Your task to perform on an android device: toggle show notifications on the lock screen Image 0: 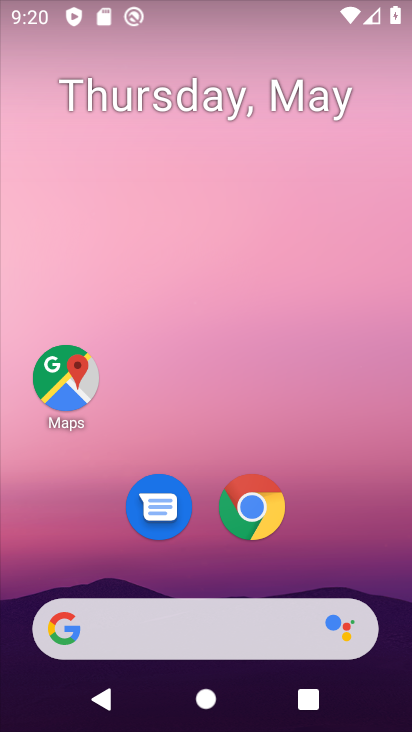
Step 0: drag from (342, 564) to (297, 248)
Your task to perform on an android device: toggle show notifications on the lock screen Image 1: 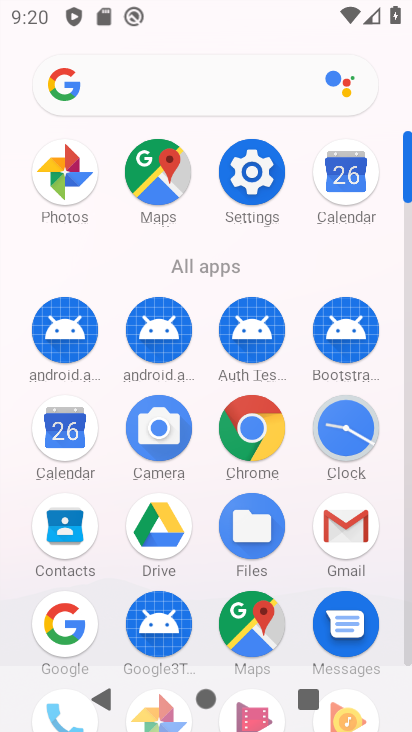
Step 1: click (257, 172)
Your task to perform on an android device: toggle show notifications on the lock screen Image 2: 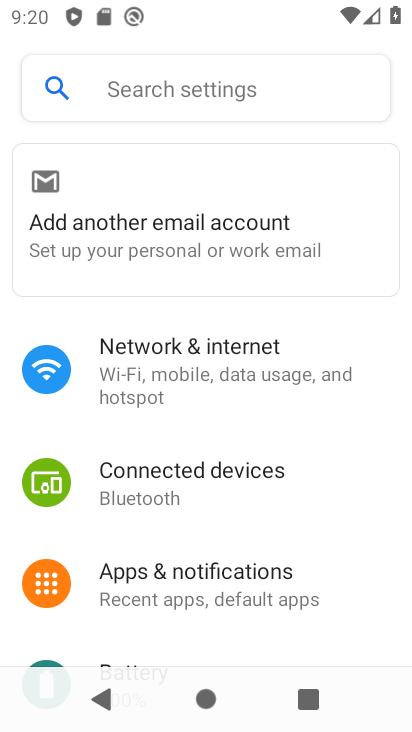
Step 2: click (238, 575)
Your task to perform on an android device: toggle show notifications on the lock screen Image 3: 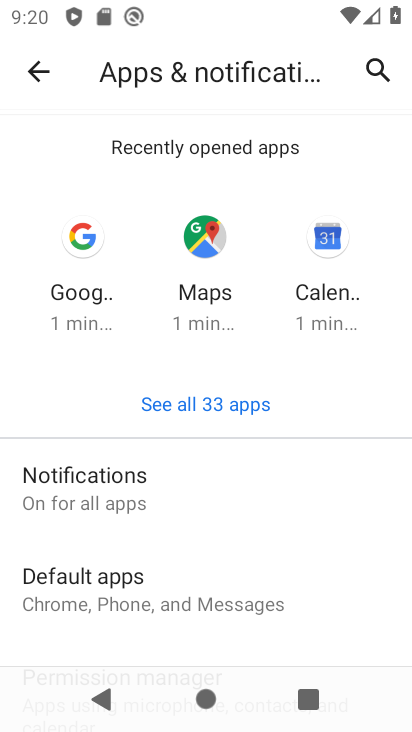
Step 3: click (240, 485)
Your task to perform on an android device: toggle show notifications on the lock screen Image 4: 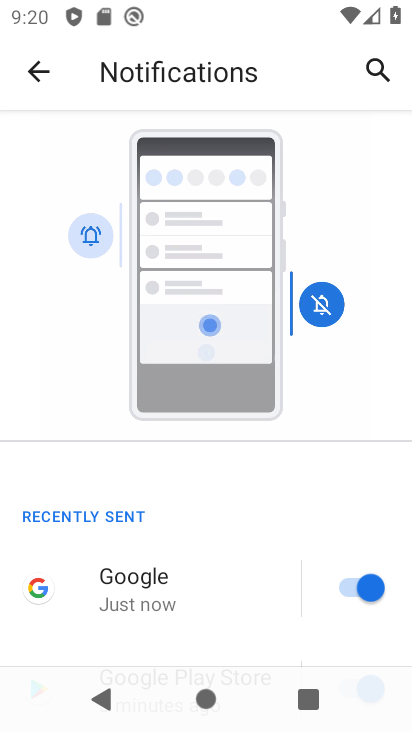
Step 4: drag from (267, 611) to (232, 168)
Your task to perform on an android device: toggle show notifications on the lock screen Image 5: 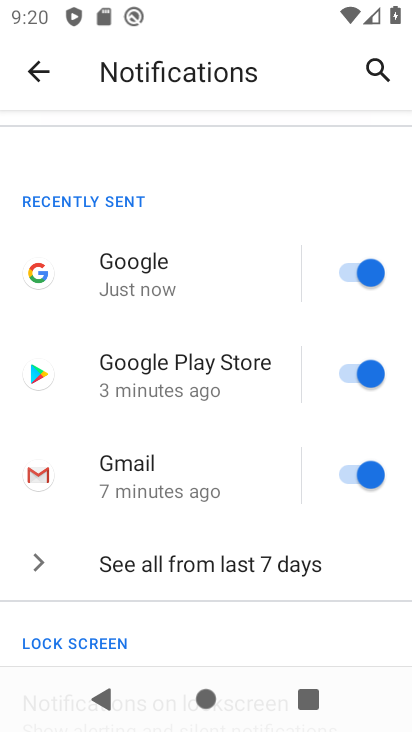
Step 5: drag from (237, 606) to (198, 270)
Your task to perform on an android device: toggle show notifications on the lock screen Image 6: 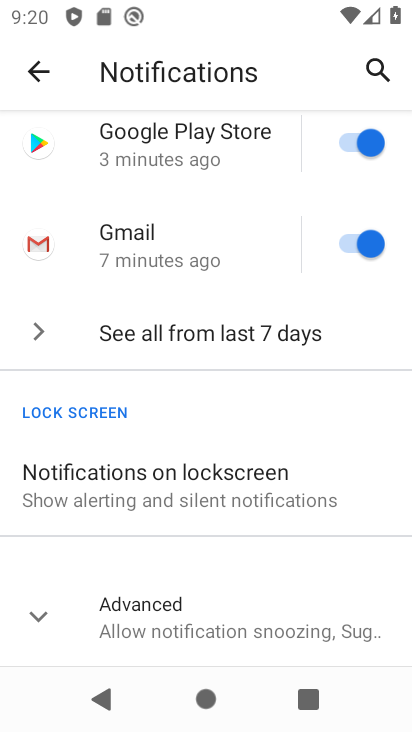
Step 6: click (210, 475)
Your task to perform on an android device: toggle show notifications on the lock screen Image 7: 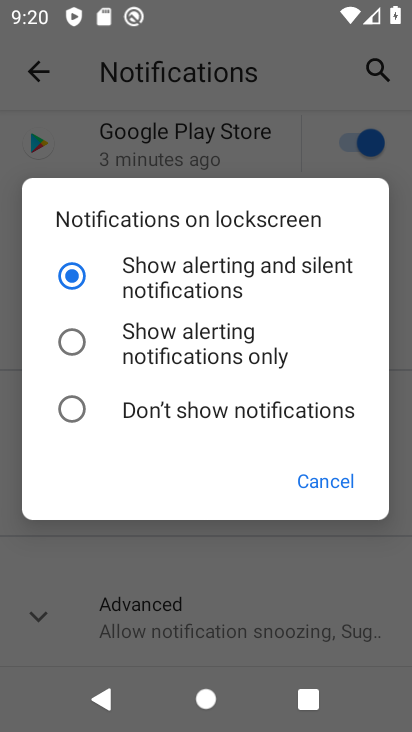
Step 7: click (186, 346)
Your task to perform on an android device: toggle show notifications on the lock screen Image 8: 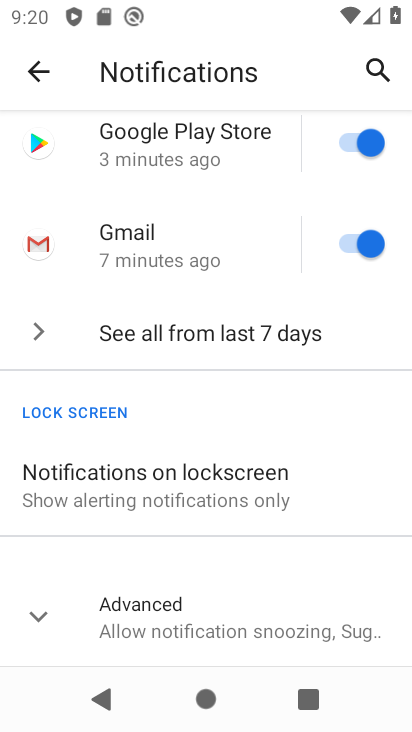
Step 8: task complete